Your task to perform on an android device: Open Yahoo.com Image 0: 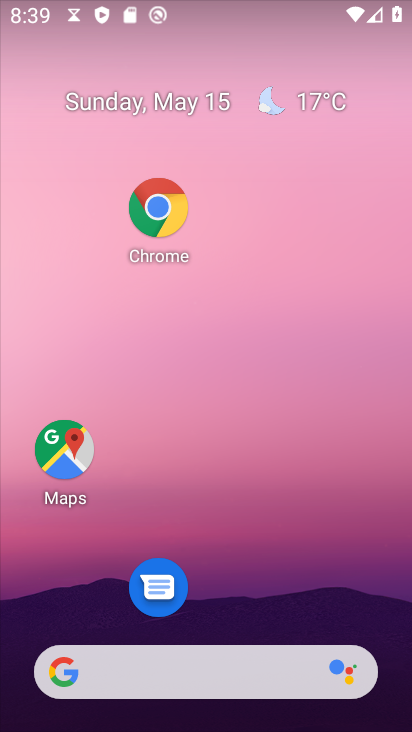
Step 0: drag from (345, 597) to (181, 1)
Your task to perform on an android device: Open Yahoo.com Image 1: 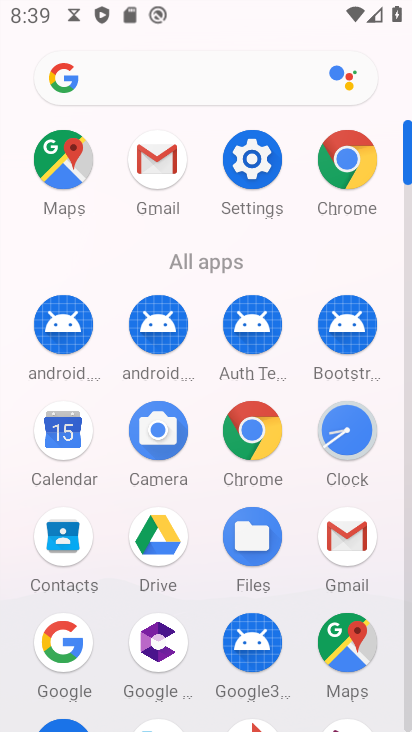
Step 1: click (356, 158)
Your task to perform on an android device: Open Yahoo.com Image 2: 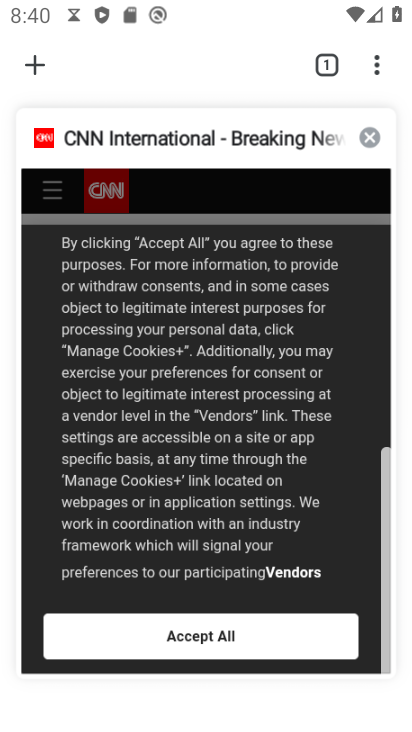
Step 2: click (380, 68)
Your task to perform on an android device: Open Yahoo.com Image 3: 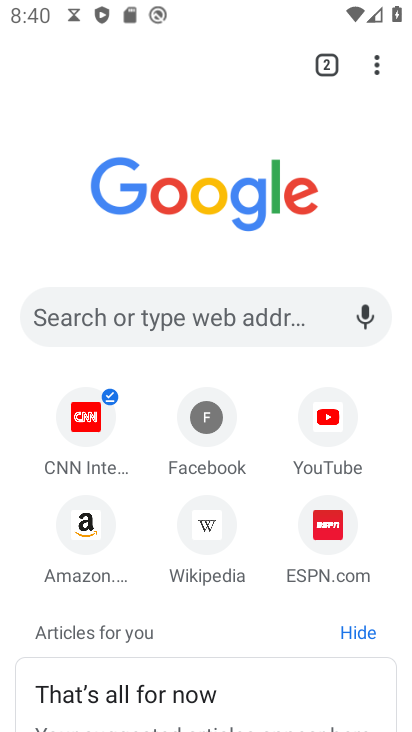
Step 3: click (86, 312)
Your task to perform on an android device: Open Yahoo.com Image 4: 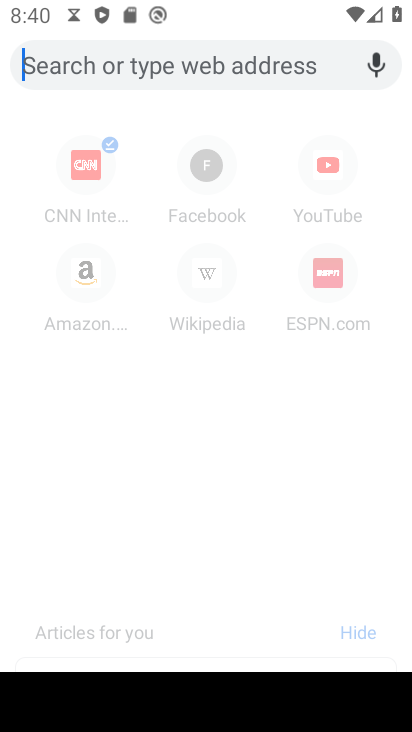
Step 4: type "www.yahoo.com"
Your task to perform on an android device: Open Yahoo.com Image 5: 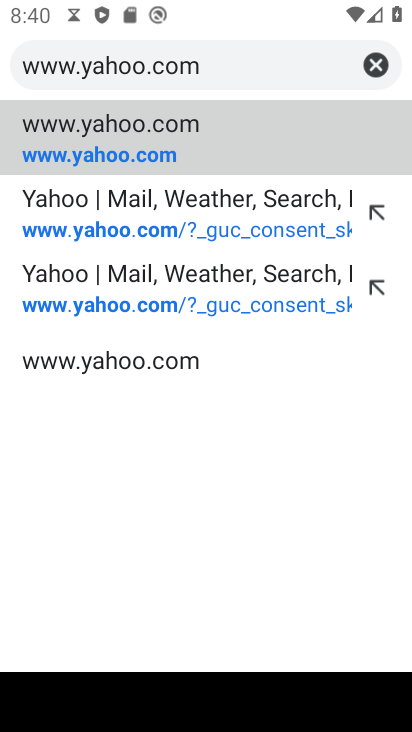
Step 5: click (86, 138)
Your task to perform on an android device: Open Yahoo.com Image 6: 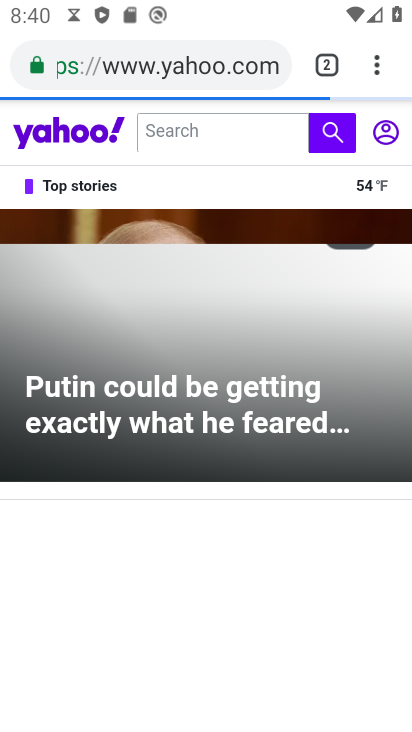
Step 6: task complete